Your task to perform on an android device: Open the stopwatch Image 0: 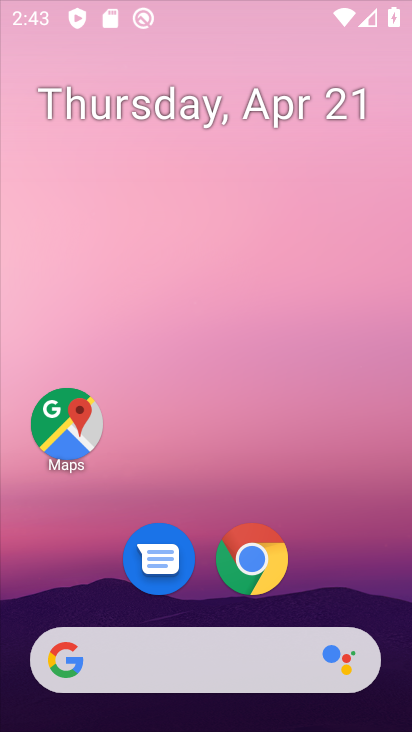
Step 0: drag from (307, 594) to (290, 99)
Your task to perform on an android device: Open the stopwatch Image 1: 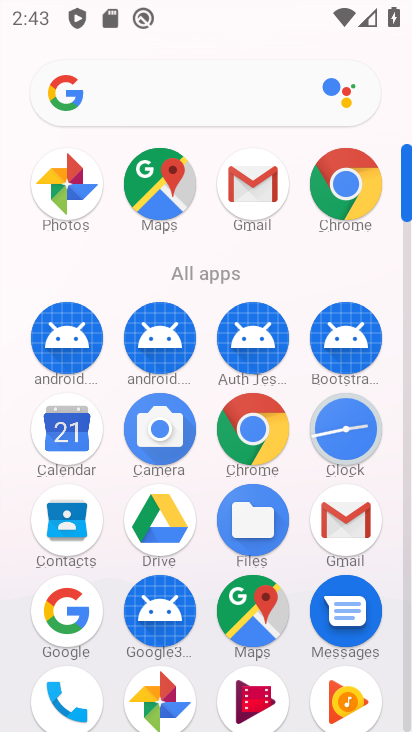
Step 1: click (349, 433)
Your task to perform on an android device: Open the stopwatch Image 2: 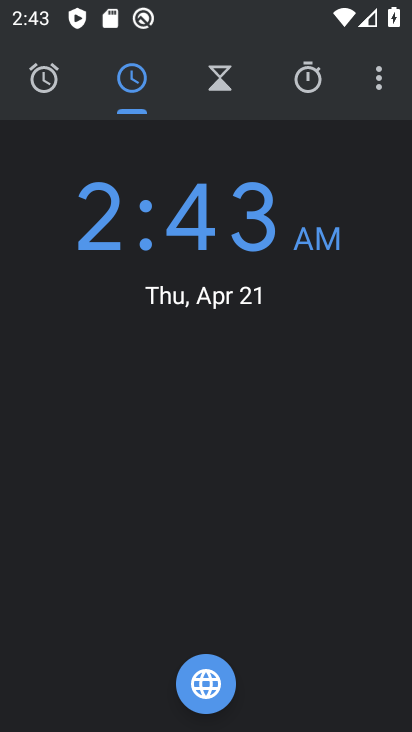
Step 2: click (305, 85)
Your task to perform on an android device: Open the stopwatch Image 3: 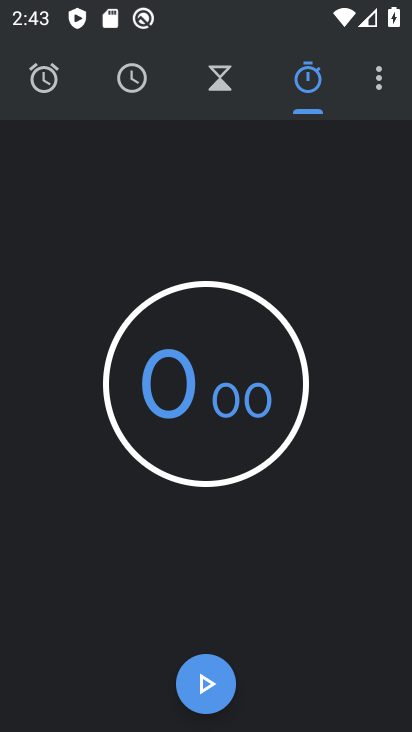
Step 3: task complete